Your task to perform on an android device: Go to settings Image 0: 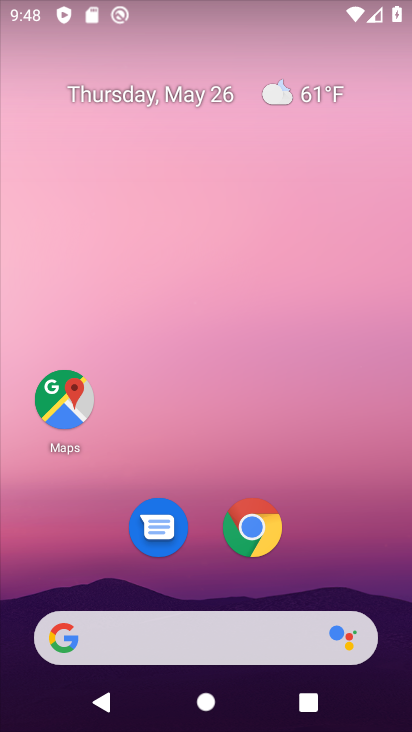
Step 0: drag from (193, 577) to (256, 64)
Your task to perform on an android device: Go to settings Image 1: 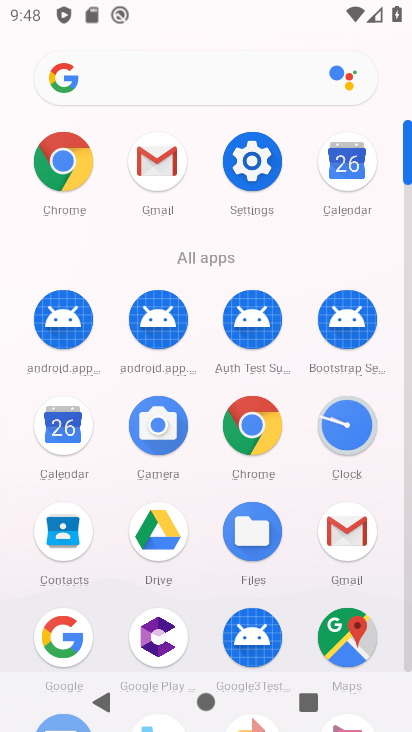
Step 1: click (249, 163)
Your task to perform on an android device: Go to settings Image 2: 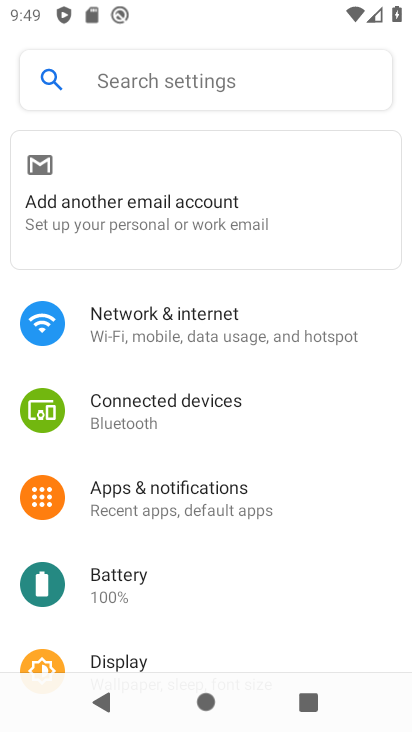
Step 2: task complete